Your task to perform on an android device: turn notification dots on Image 0: 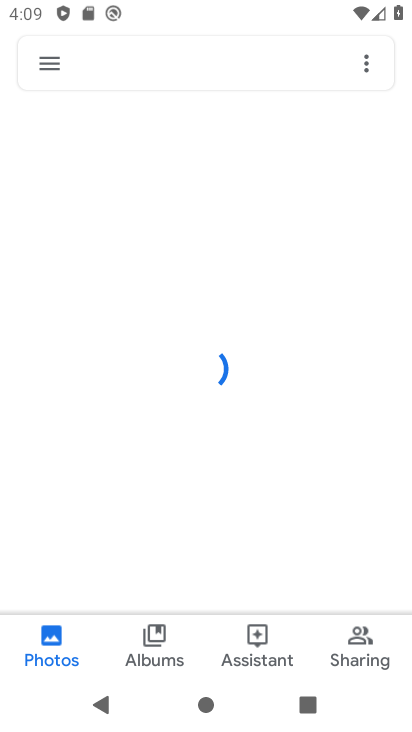
Step 0: press home button
Your task to perform on an android device: turn notification dots on Image 1: 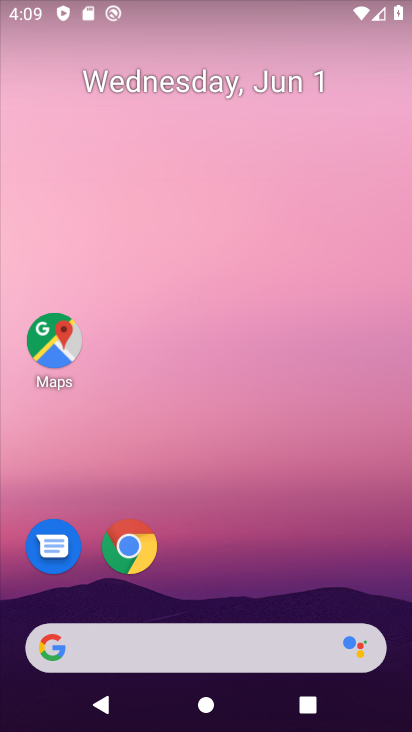
Step 1: drag from (253, 481) to (195, 134)
Your task to perform on an android device: turn notification dots on Image 2: 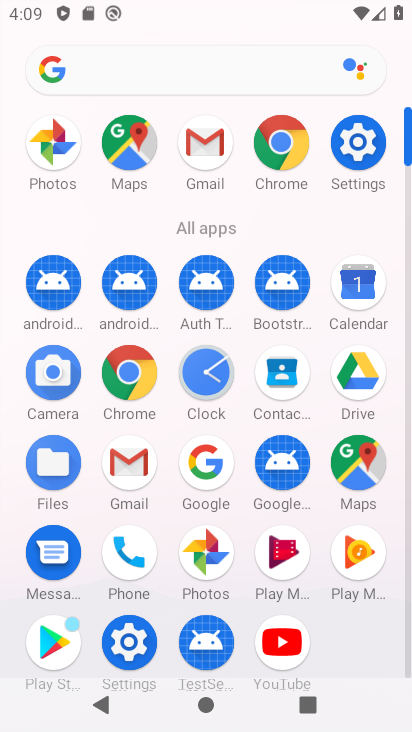
Step 2: click (131, 638)
Your task to perform on an android device: turn notification dots on Image 3: 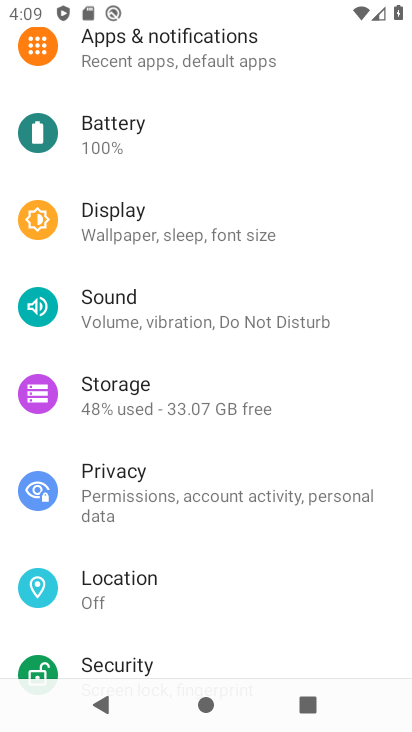
Step 3: click (184, 37)
Your task to perform on an android device: turn notification dots on Image 4: 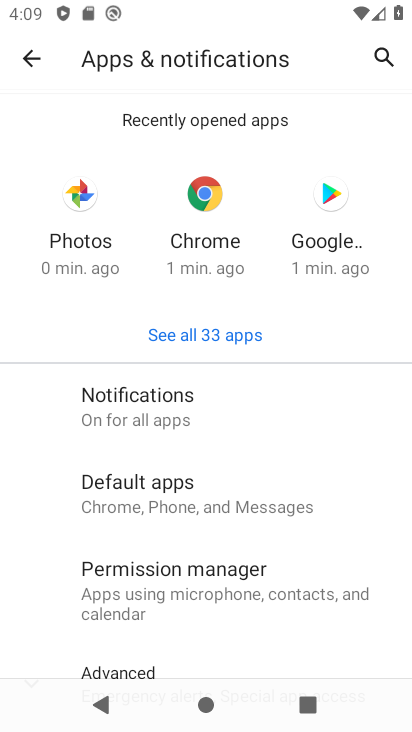
Step 4: click (144, 389)
Your task to perform on an android device: turn notification dots on Image 5: 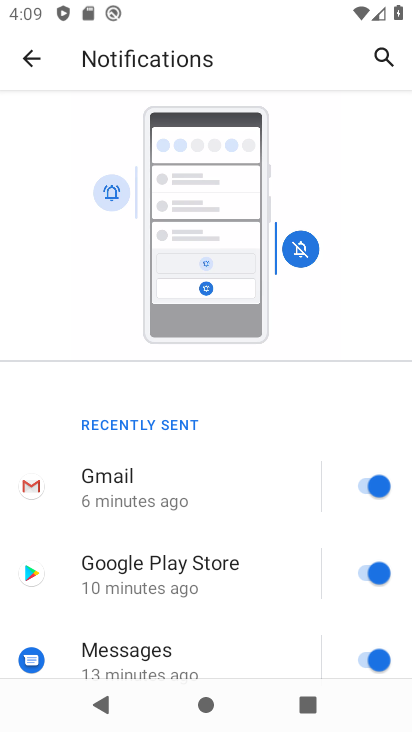
Step 5: drag from (269, 604) to (218, 267)
Your task to perform on an android device: turn notification dots on Image 6: 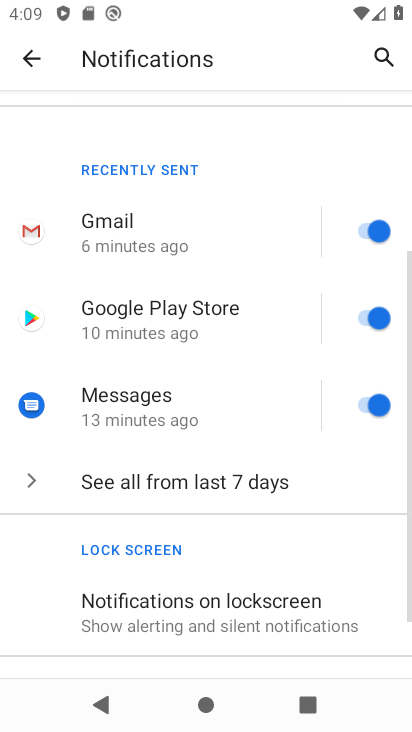
Step 6: drag from (287, 496) to (269, 145)
Your task to perform on an android device: turn notification dots on Image 7: 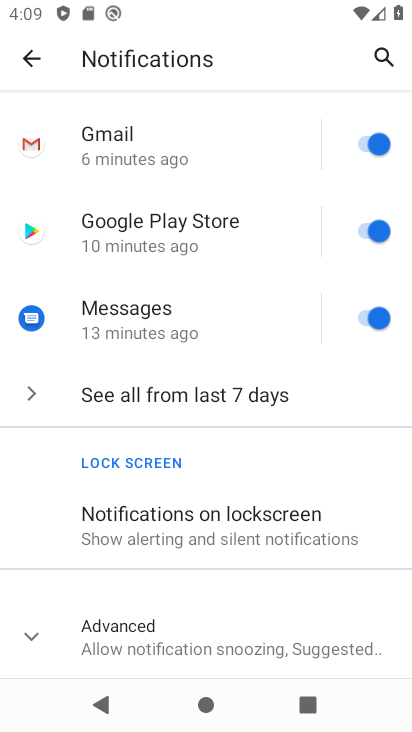
Step 7: click (57, 630)
Your task to perform on an android device: turn notification dots on Image 8: 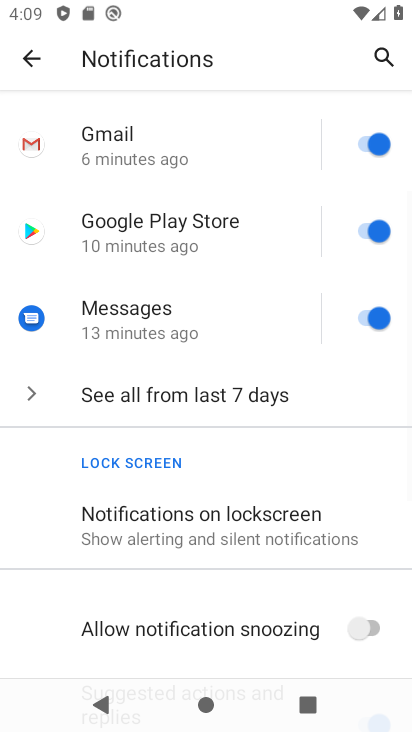
Step 8: task complete